Your task to perform on an android device: turn on priority inbox in the gmail app Image 0: 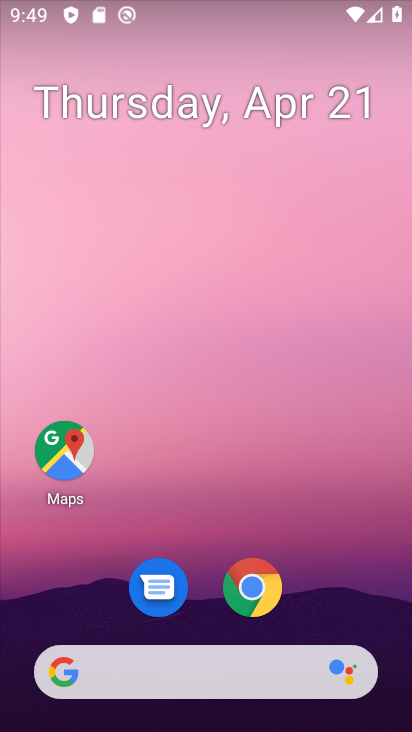
Step 0: drag from (349, 599) to (357, 72)
Your task to perform on an android device: turn on priority inbox in the gmail app Image 1: 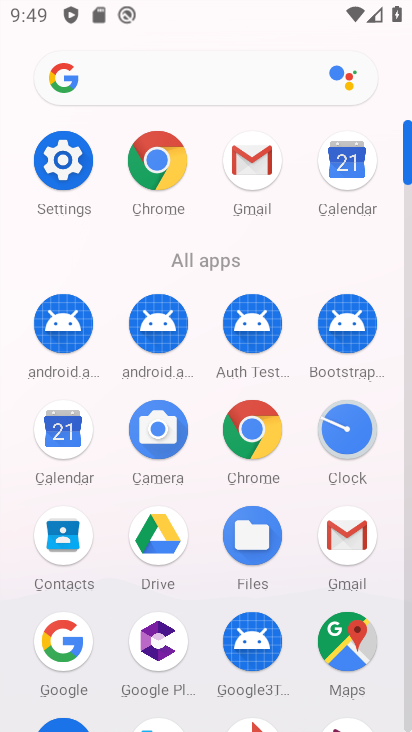
Step 1: click (330, 534)
Your task to perform on an android device: turn on priority inbox in the gmail app Image 2: 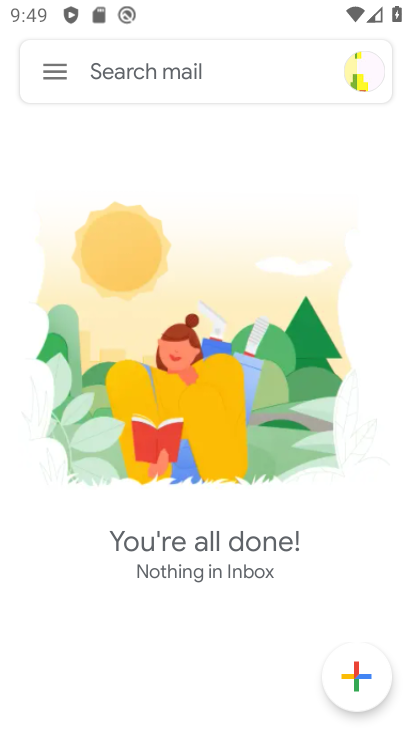
Step 2: click (62, 74)
Your task to perform on an android device: turn on priority inbox in the gmail app Image 3: 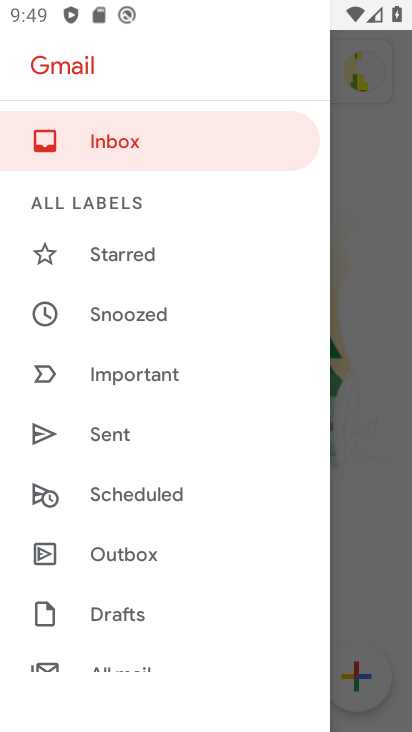
Step 3: drag from (262, 456) to (271, 356)
Your task to perform on an android device: turn on priority inbox in the gmail app Image 4: 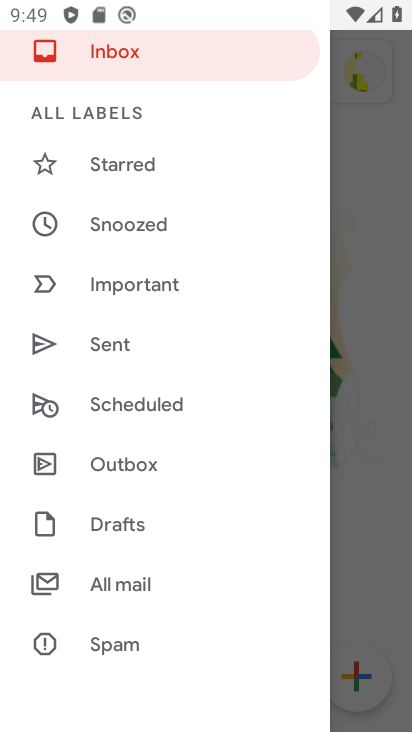
Step 4: drag from (271, 487) to (270, 343)
Your task to perform on an android device: turn on priority inbox in the gmail app Image 5: 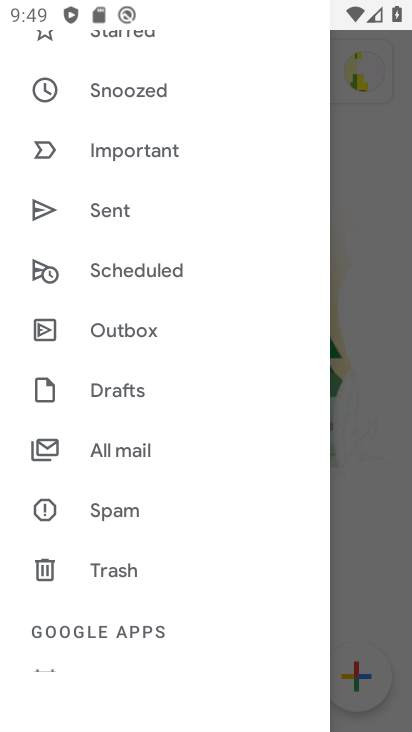
Step 5: drag from (251, 516) to (266, 372)
Your task to perform on an android device: turn on priority inbox in the gmail app Image 6: 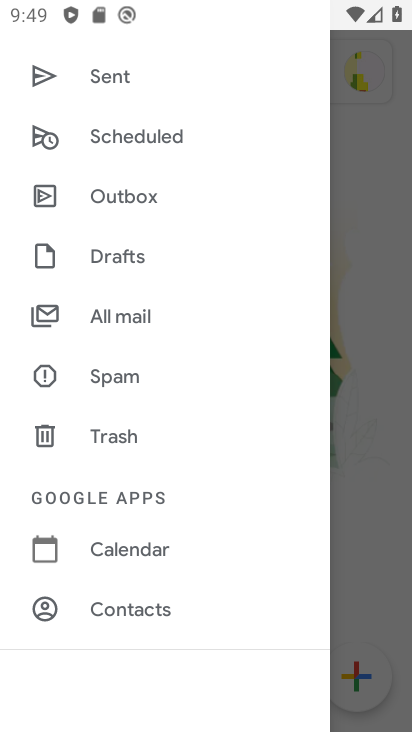
Step 6: drag from (257, 530) to (261, 367)
Your task to perform on an android device: turn on priority inbox in the gmail app Image 7: 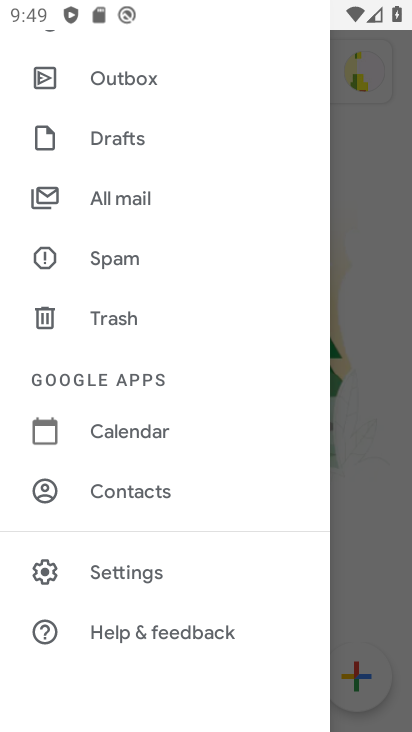
Step 7: drag from (265, 561) to (275, 356)
Your task to perform on an android device: turn on priority inbox in the gmail app Image 8: 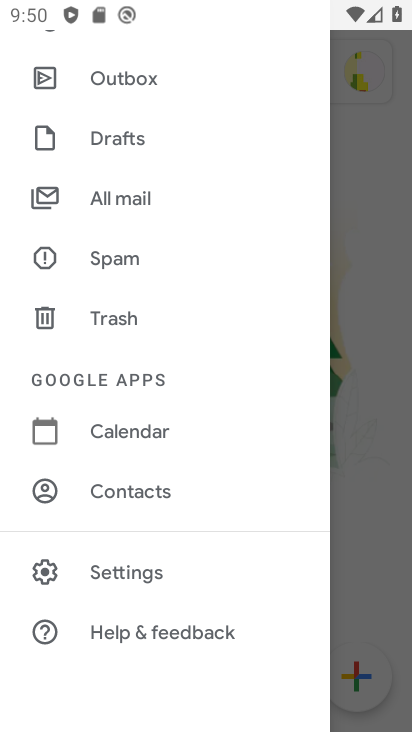
Step 8: click (161, 569)
Your task to perform on an android device: turn on priority inbox in the gmail app Image 9: 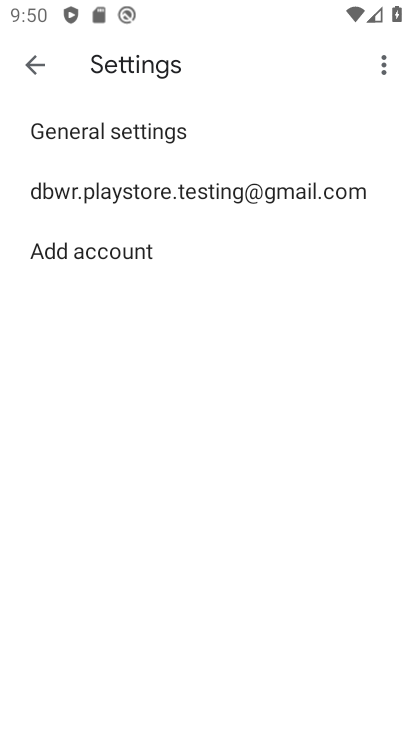
Step 9: click (235, 189)
Your task to perform on an android device: turn on priority inbox in the gmail app Image 10: 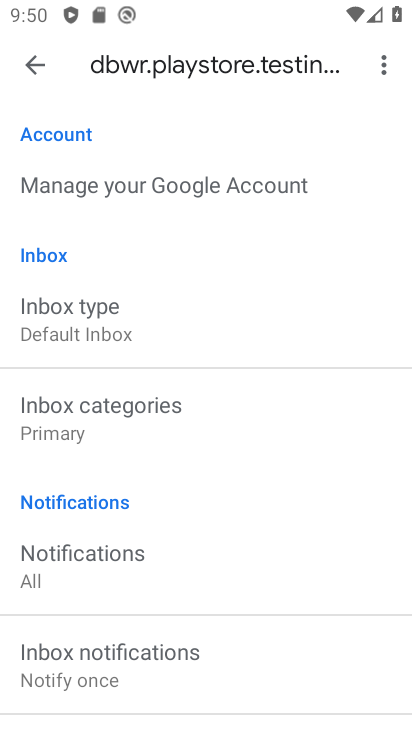
Step 10: drag from (310, 562) to (315, 362)
Your task to perform on an android device: turn on priority inbox in the gmail app Image 11: 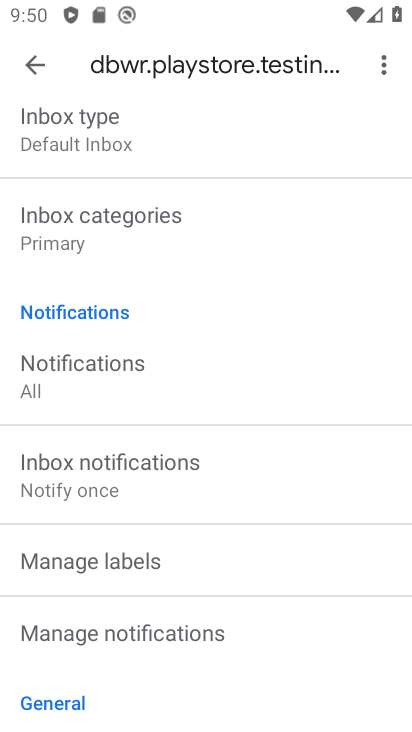
Step 11: drag from (325, 571) to (341, 350)
Your task to perform on an android device: turn on priority inbox in the gmail app Image 12: 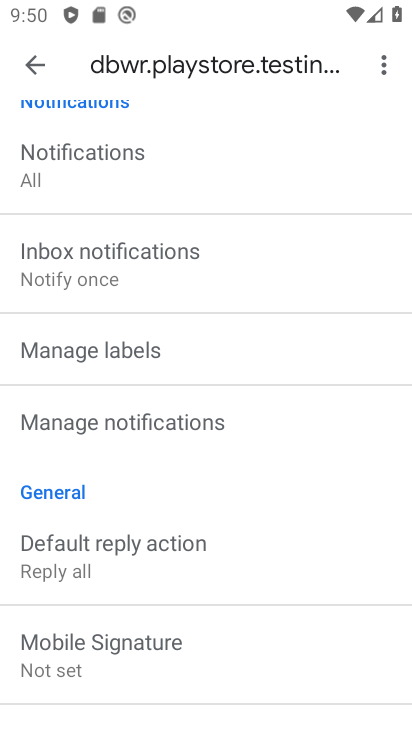
Step 12: drag from (323, 503) to (331, 326)
Your task to perform on an android device: turn on priority inbox in the gmail app Image 13: 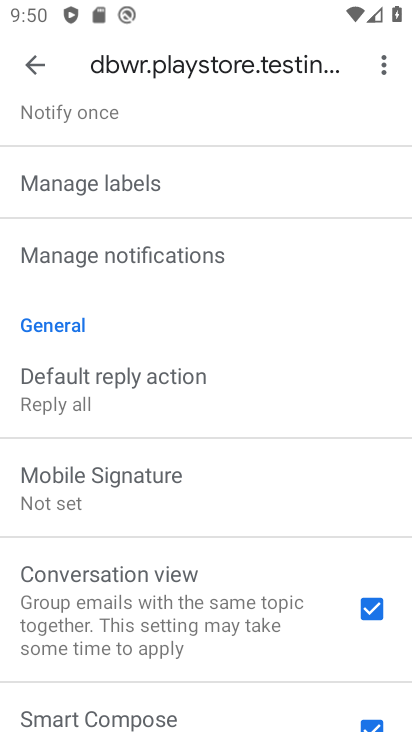
Step 13: drag from (310, 536) to (314, 369)
Your task to perform on an android device: turn on priority inbox in the gmail app Image 14: 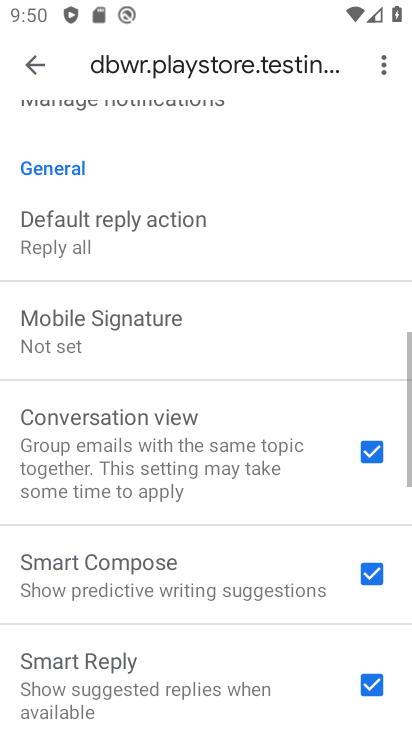
Step 14: drag from (300, 561) to (319, 346)
Your task to perform on an android device: turn on priority inbox in the gmail app Image 15: 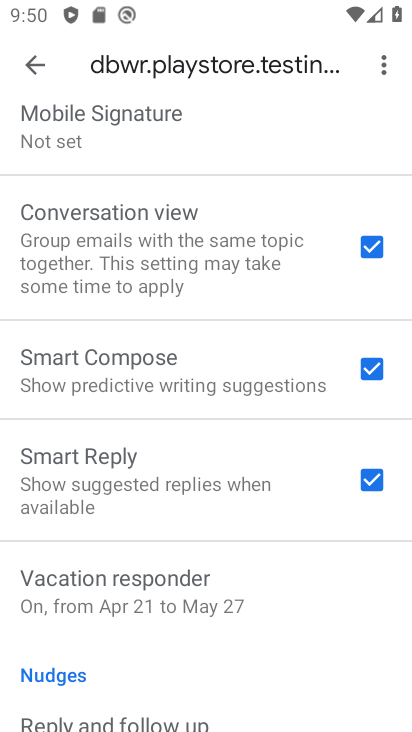
Step 15: drag from (295, 576) to (314, 360)
Your task to perform on an android device: turn on priority inbox in the gmail app Image 16: 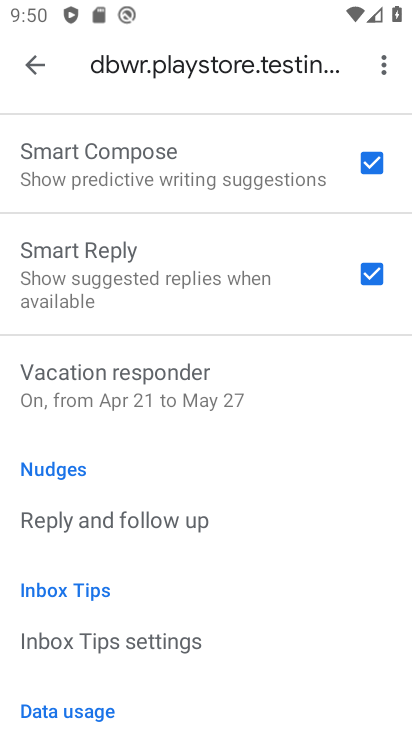
Step 16: drag from (309, 249) to (304, 461)
Your task to perform on an android device: turn on priority inbox in the gmail app Image 17: 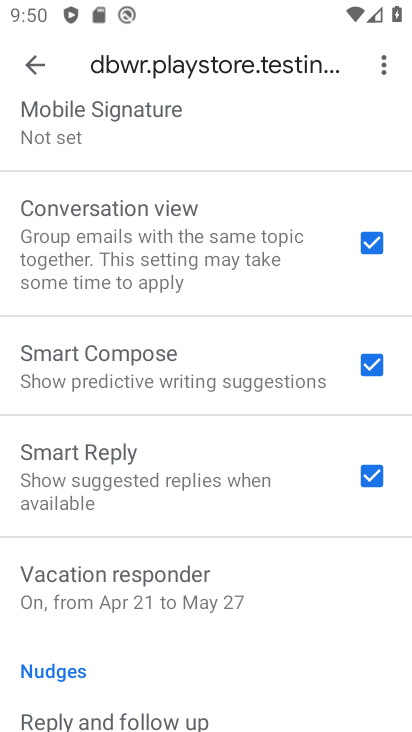
Step 17: drag from (309, 231) to (304, 480)
Your task to perform on an android device: turn on priority inbox in the gmail app Image 18: 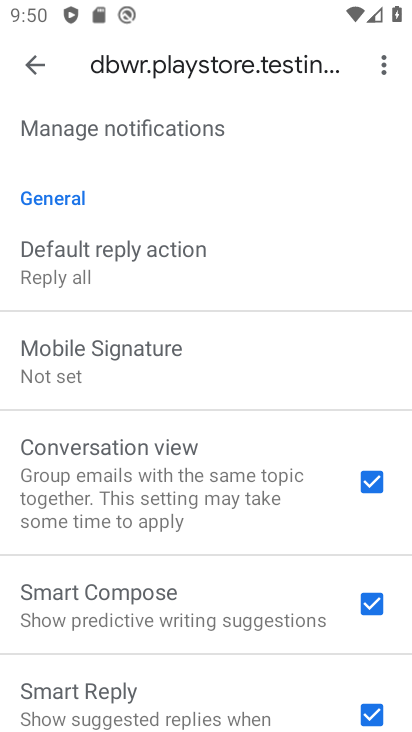
Step 18: drag from (303, 234) to (300, 458)
Your task to perform on an android device: turn on priority inbox in the gmail app Image 19: 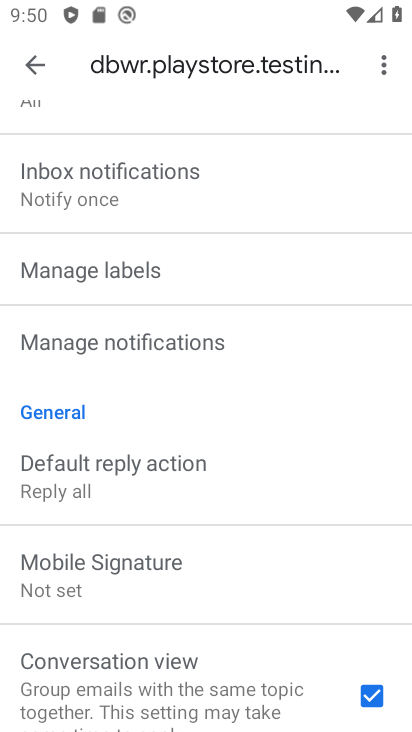
Step 19: drag from (275, 344) to (273, 451)
Your task to perform on an android device: turn on priority inbox in the gmail app Image 20: 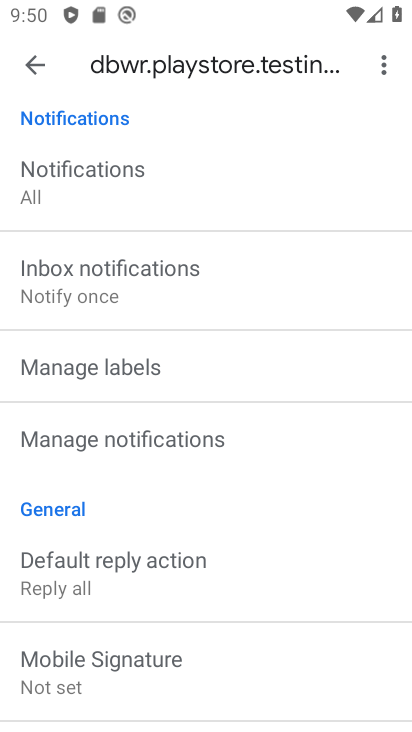
Step 20: drag from (284, 314) to (286, 411)
Your task to perform on an android device: turn on priority inbox in the gmail app Image 21: 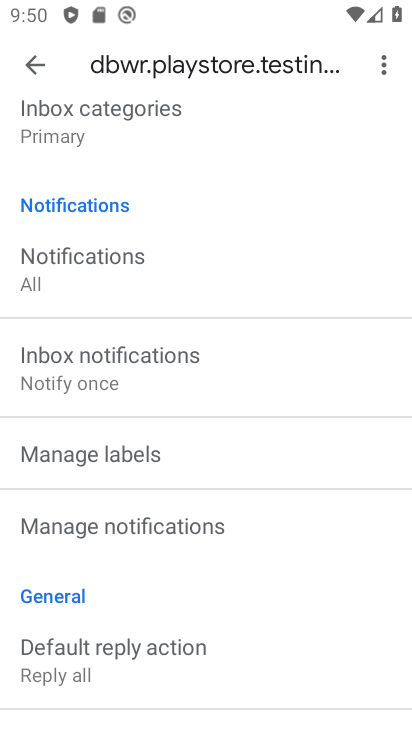
Step 21: drag from (318, 182) to (326, 454)
Your task to perform on an android device: turn on priority inbox in the gmail app Image 22: 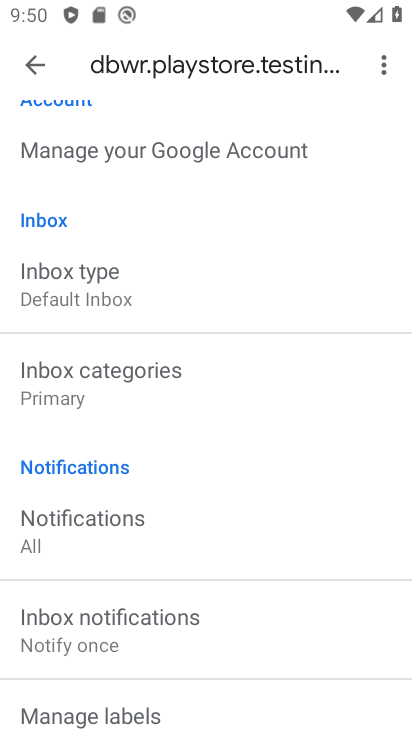
Step 22: click (86, 262)
Your task to perform on an android device: turn on priority inbox in the gmail app Image 23: 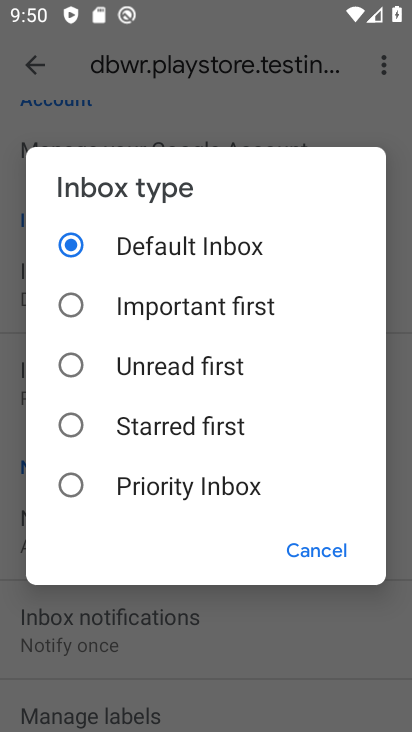
Step 23: click (173, 493)
Your task to perform on an android device: turn on priority inbox in the gmail app Image 24: 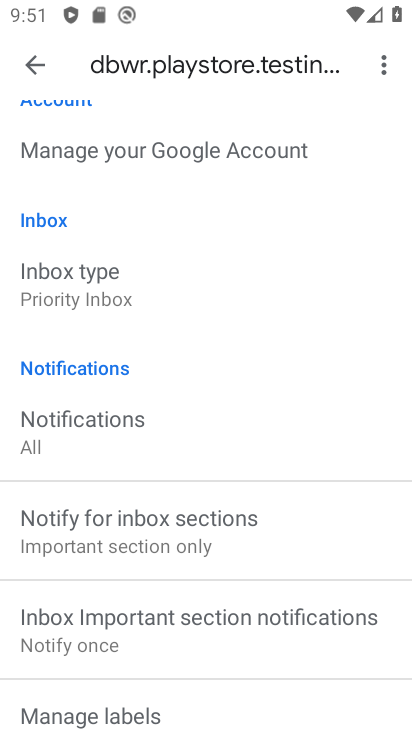
Step 24: task complete